Your task to perform on an android device: Open settings on Google Maps Image 0: 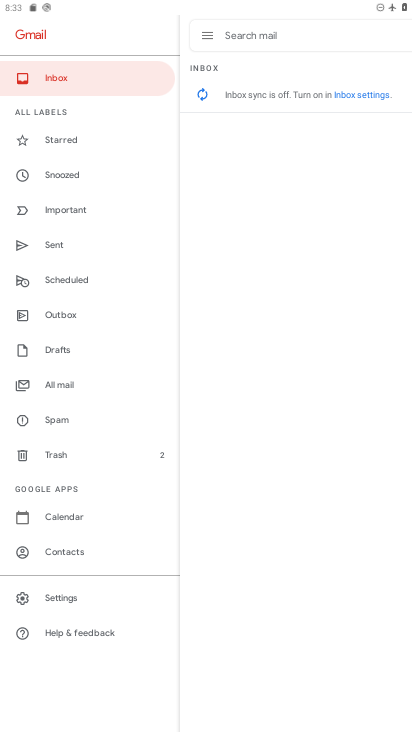
Step 0: press home button
Your task to perform on an android device: Open settings on Google Maps Image 1: 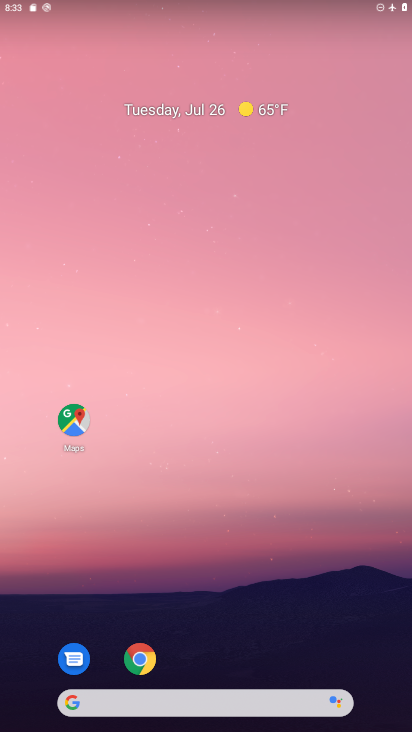
Step 1: click (75, 419)
Your task to perform on an android device: Open settings on Google Maps Image 2: 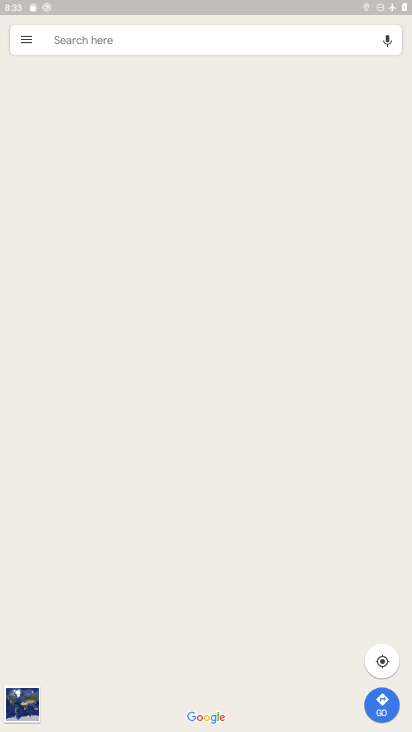
Step 2: click (25, 43)
Your task to perform on an android device: Open settings on Google Maps Image 3: 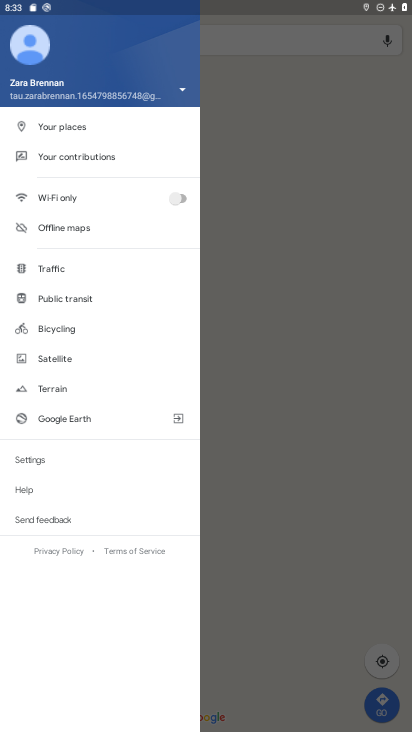
Step 3: click (52, 459)
Your task to perform on an android device: Open settings on Google Maps Image 4: 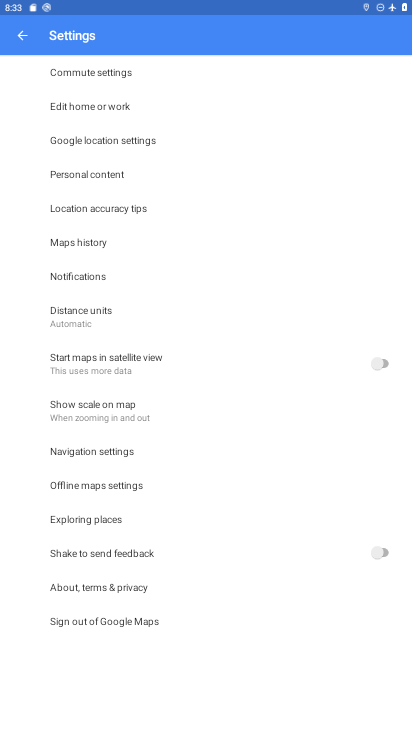
Step 4: task complete